Your task to perform on an android device: turn off notifications in google photos Image 0: 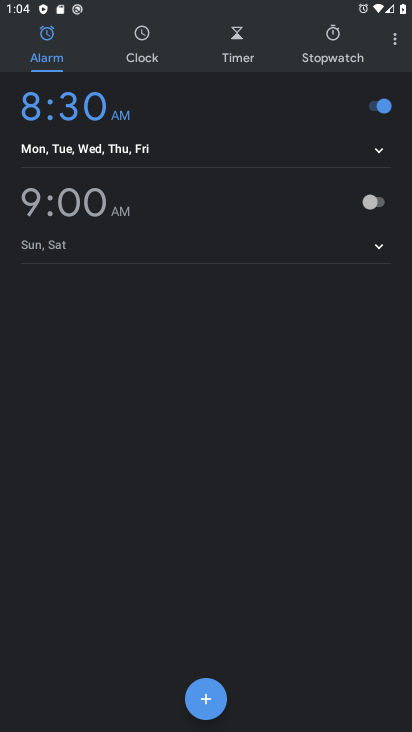
Step 0: press back button
Your task to perform on an android device: turn off notifications in google photos Image 1: 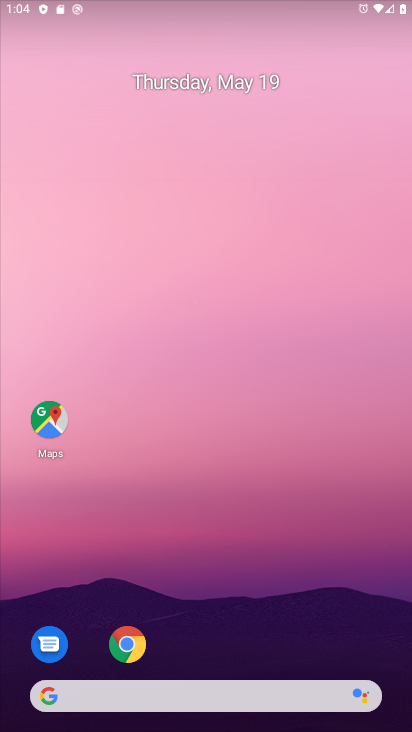
Step 1: drag from (325, 549) to (206, 35)
Your task to perform on an android device: turn off notifications in google photos Image 2: 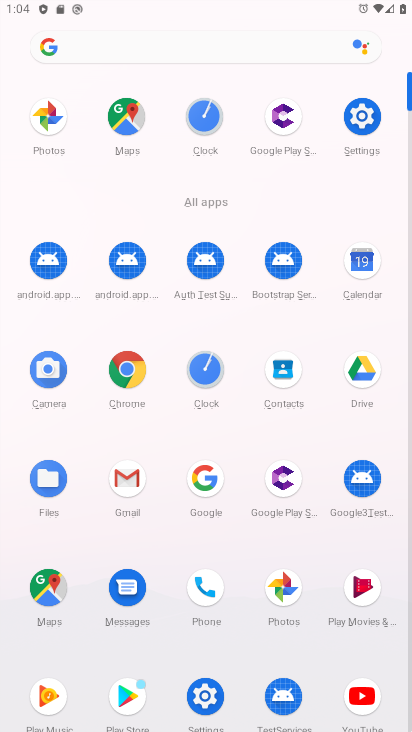
Step 2: click (286, 588)
Your task to perform on an android device: turn off notifications in google photos Image 3: 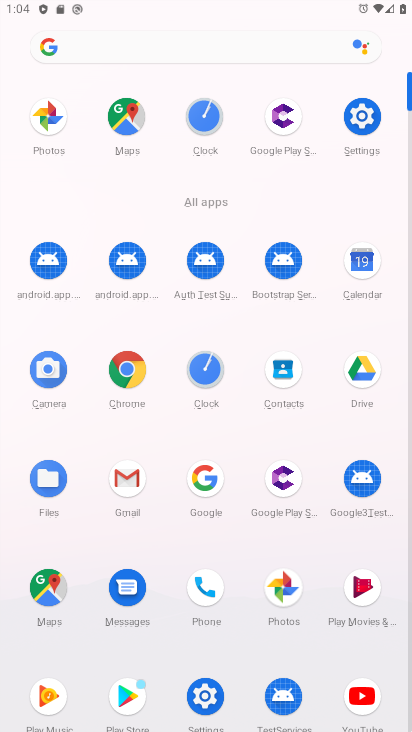
Step 3: click (286, 588)
Your task to perform on an android device: turn off notifications in google photos Image 4: 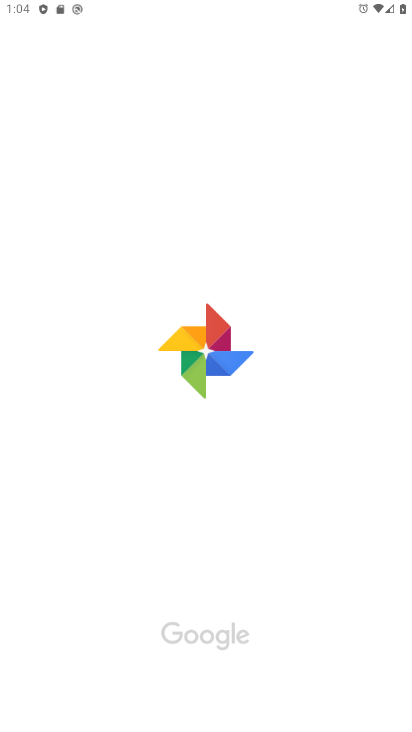
Step 4: click (286, 603)
Your task to perform on an android device: turn off notifications in google photos Image 5: 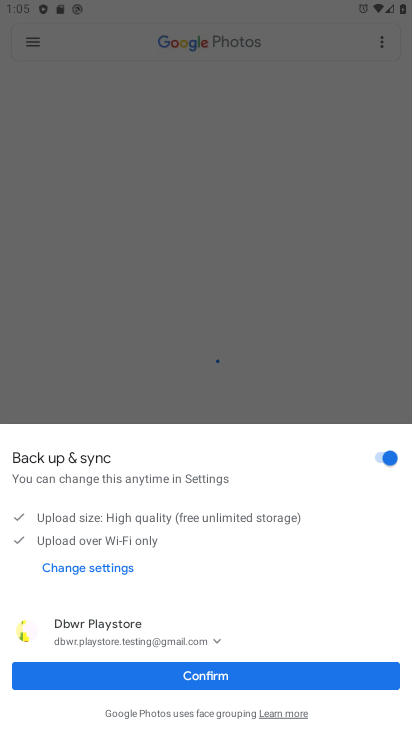
Step 5: click (212, 675)
Your task to perform on an android device: turn off notifications in google photos Image 6: 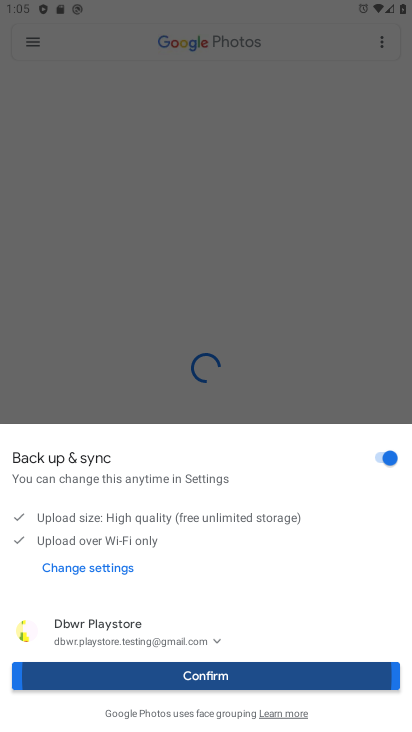
Step 6: click (213, 677)
Your task to perform on an android device: turn off notifications in google photos Image 7: 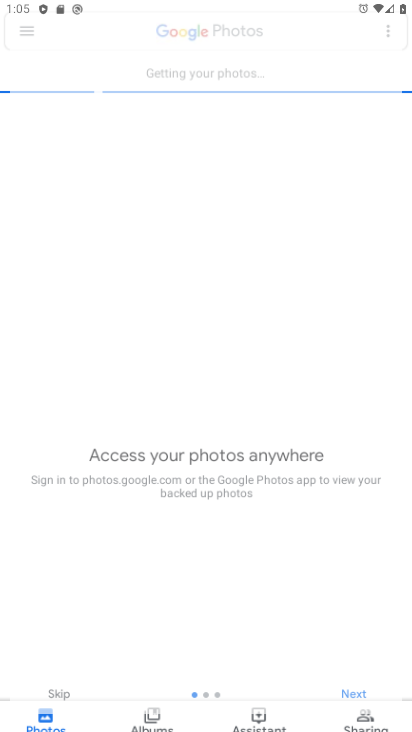
Step 7: click (225, 684)
Your task to perform on an android device: turn off notifications in google photos Image 8: 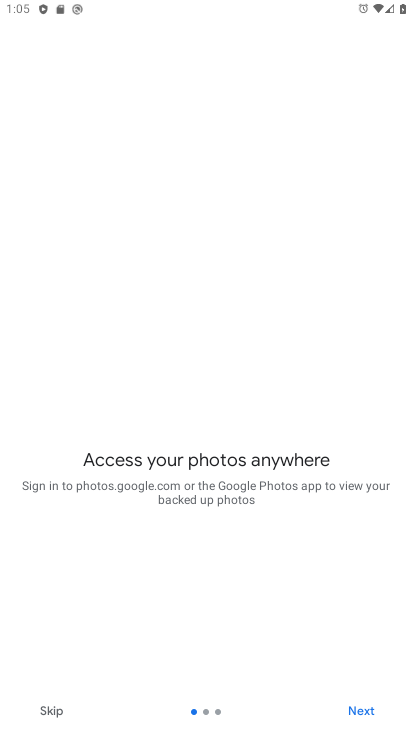
Step 8: click (365, 716)
Your task to perform on an android device: turn off notifications in google photos Image 9: 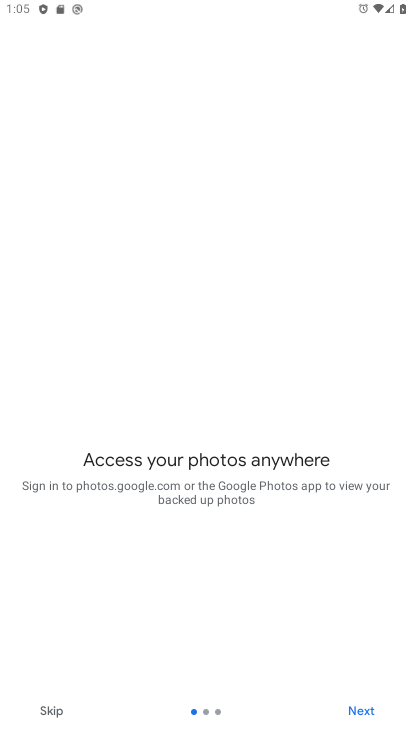
Step 9: click (365, 716)
Your task to perform on an android device: turn off notifications in google photos Image 10: 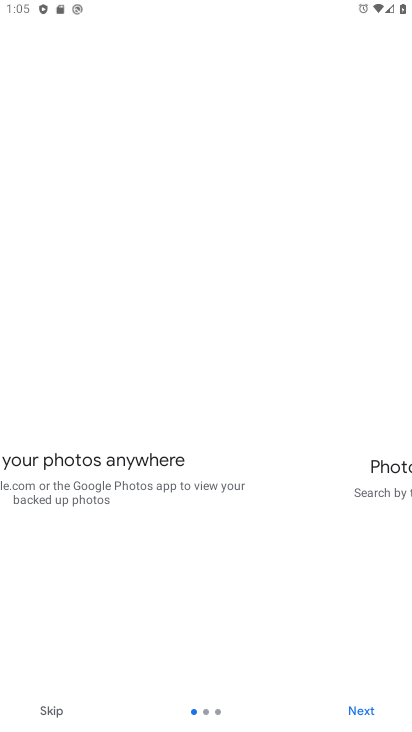
Step 10: click (365, 716)
Your task to perform on an android device: turn off notifications in google photos Image 11: 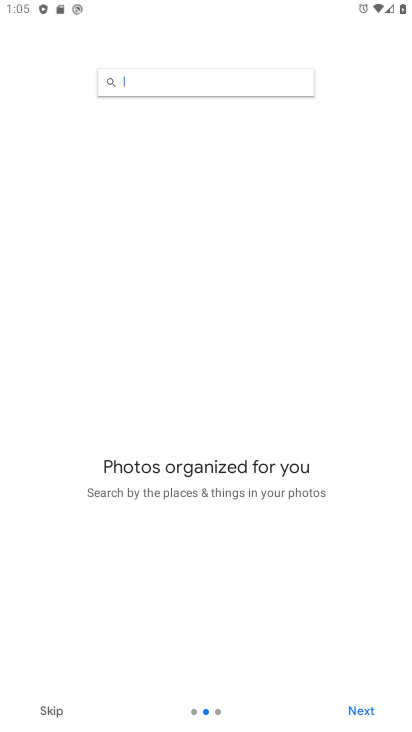
Step 11: click (365, 716)
Your task to perform on an android device: turn off notifications in google photos Image 12: 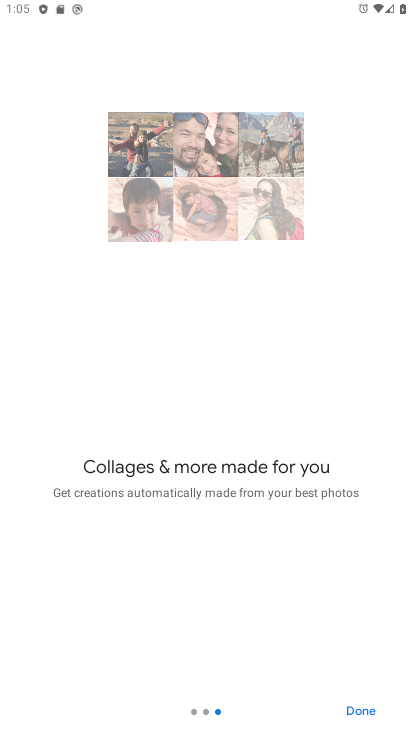
Step 12: click (365, 716)
Your task to perform on an android device: turn off notifications in google photos Image 13: 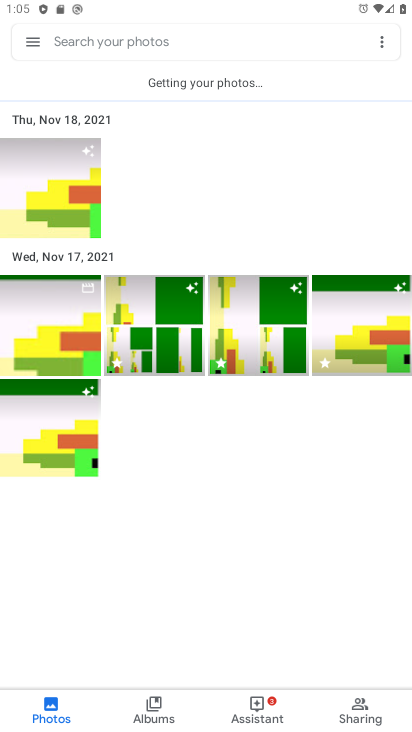
Step 13: click (27, 46)
Your task to perform on an android device: turn off notifications in google photos Image 14: 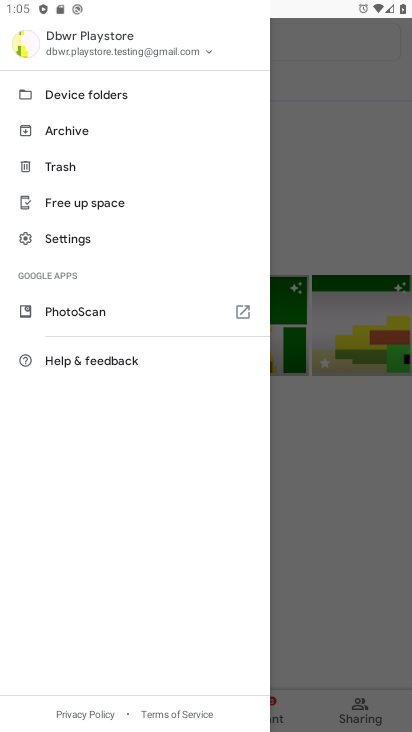
Step 14: click (61, 240)
Your task to perform on an android device: turn off notifications in google photos Image 15: 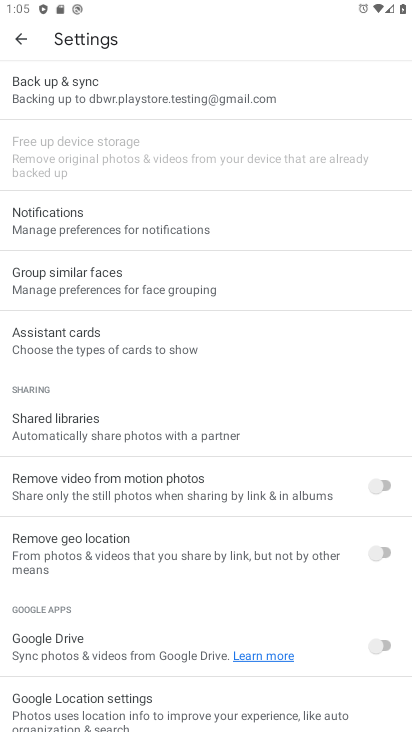
Step 15: click (62, 95)
Your task to perform on an android device: turn off notifications in google photos Image 16: 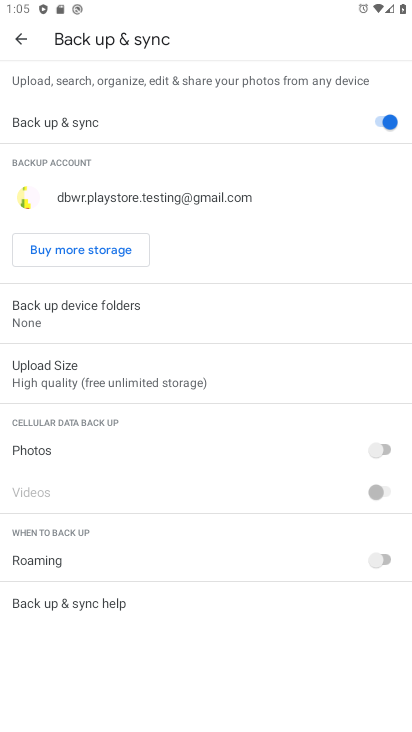
Step 16: click (22, 41)
Your task to perform on an android device: turn off notifications in google photos Image 17: 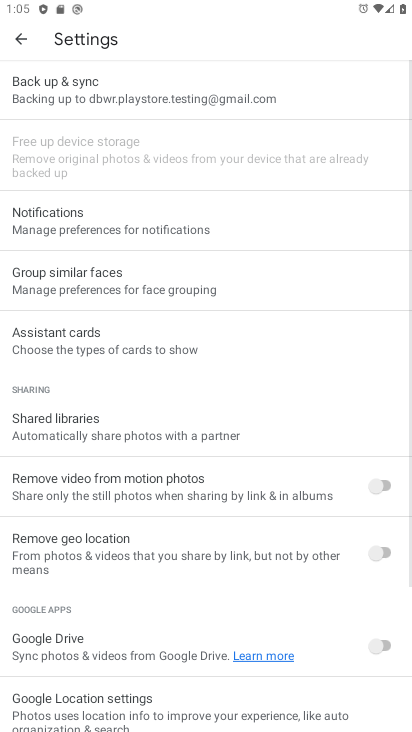
Step 17: click (58, 235)
Your task to perform on an android device: turn off notifications in google photos Image 18: 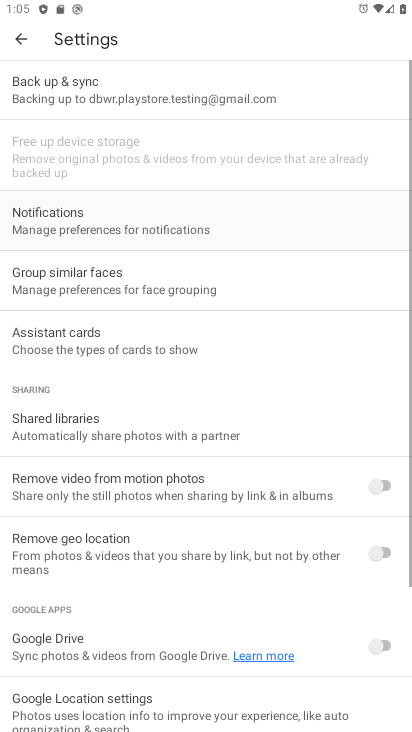
Step 18: click (61, 231)
Your task to perform on an android device: turn off notifications in google photos Image 19: 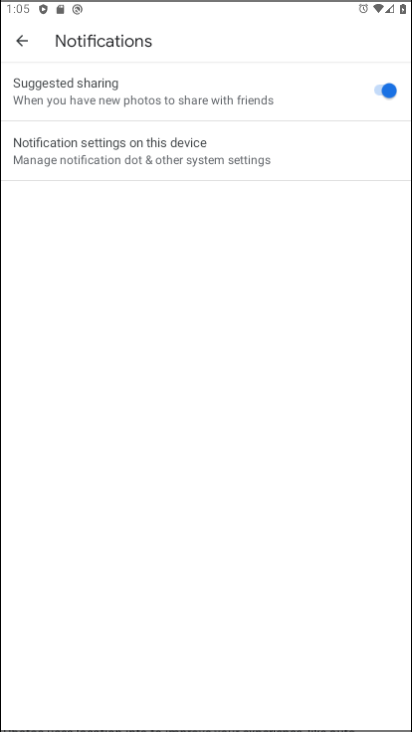
Step 19: click (61, 231)
Your task to perform on an android device: turn off notifications in google photos Image 20: 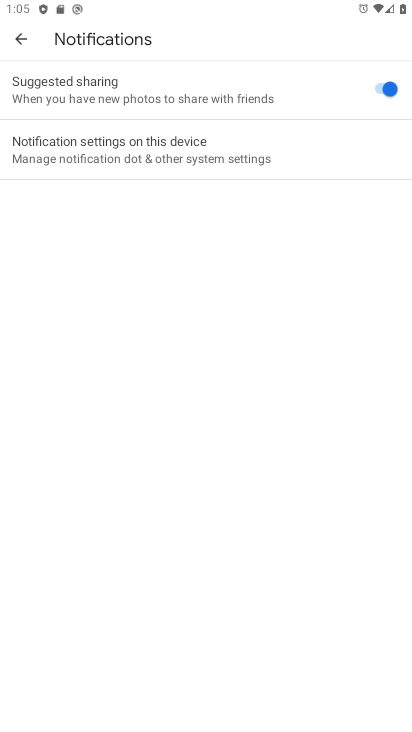
Step 20: click (61, 233)
Your task to perform on an android device: turn off notifications in google photos Image 21: 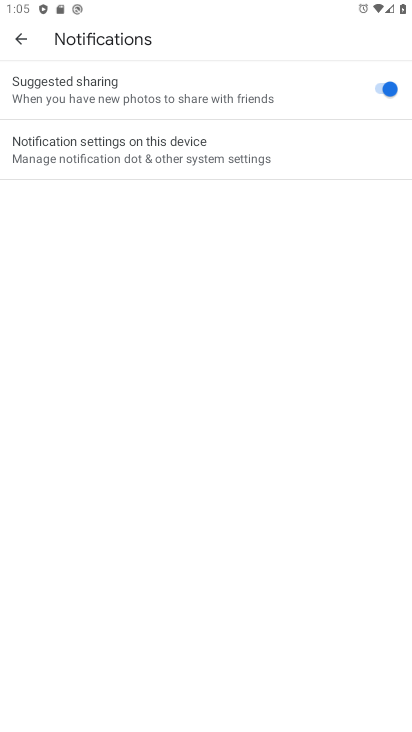
Step 21: click (96, 144)
Your task to perform on an android device: turn off notifications in google photos Image 22: 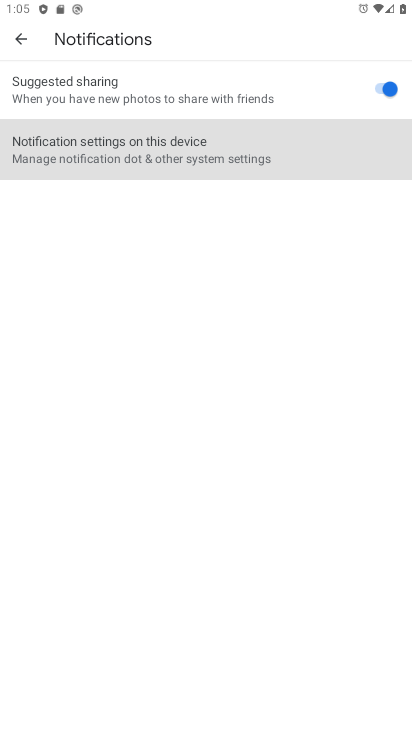
Step 22: click (96, 144)
Your task to perform on an android device: turn off notifications in google photos Image 23: 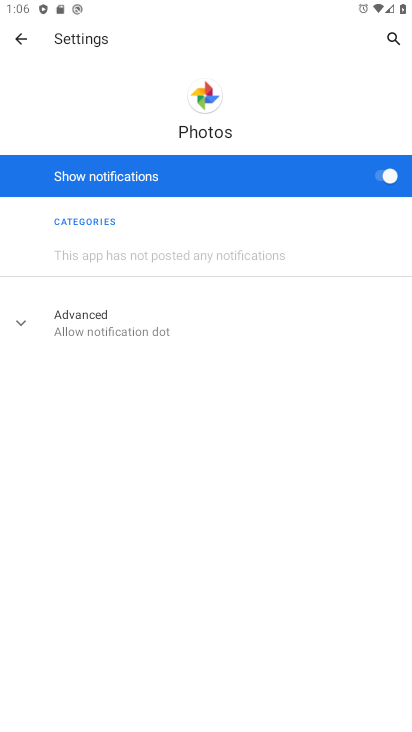
Step 23: task complete